Your task to perform on an android device: find which apps use the phone's location Image 0: 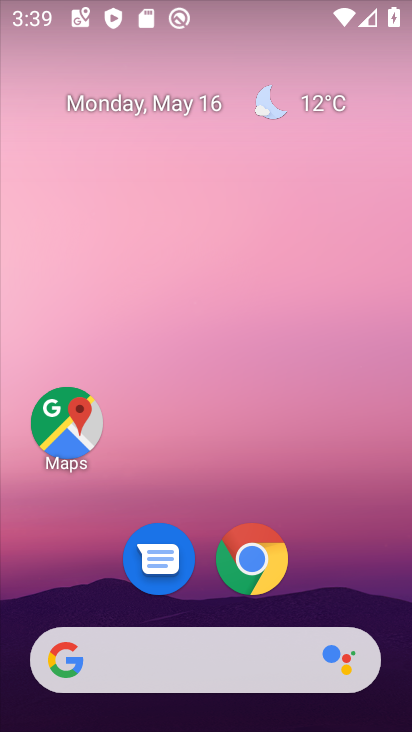
Step 0: drag from (314, 591) to (309, 253)
Your task to perform on an android device: find which apps use the phone's location Image 1: 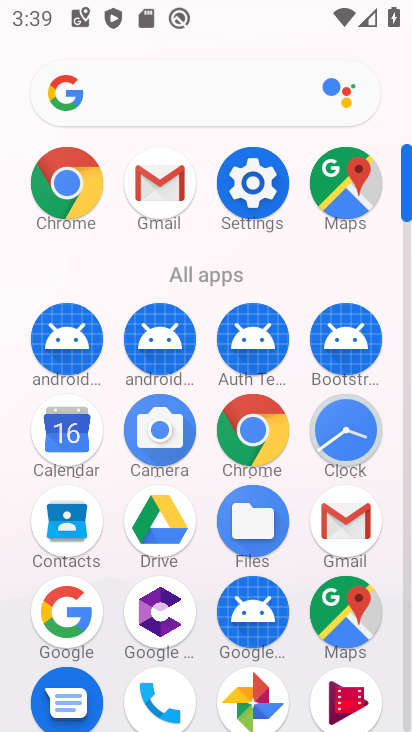
Step 1: click (264, 218)
Your task to perform on an android device: find which apps use the phone's location Image 2: 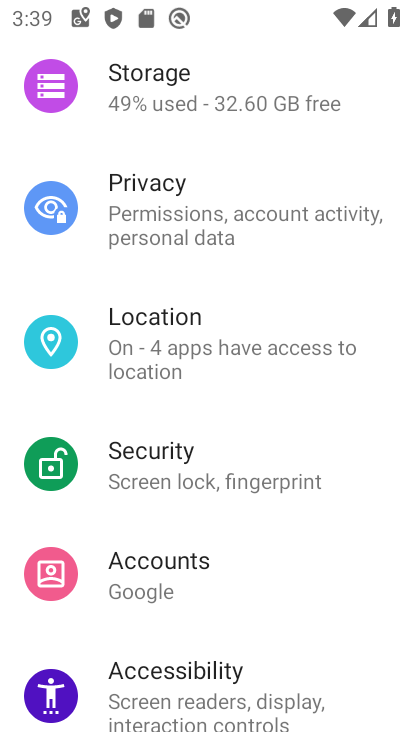
Step 2: drag from (272, 531) to (269, 286)
Your task to perform on an android device: find which apps use the phone's location Image 3: 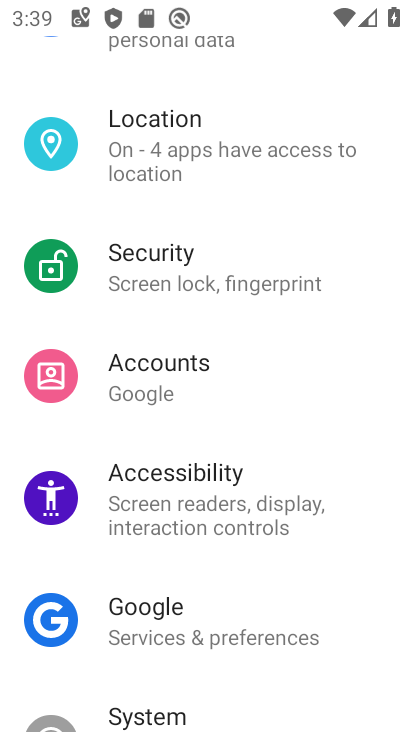
Step 3: click (225, 162)
Your task to perform on an android device: find which apps use the phone's location Image 4: 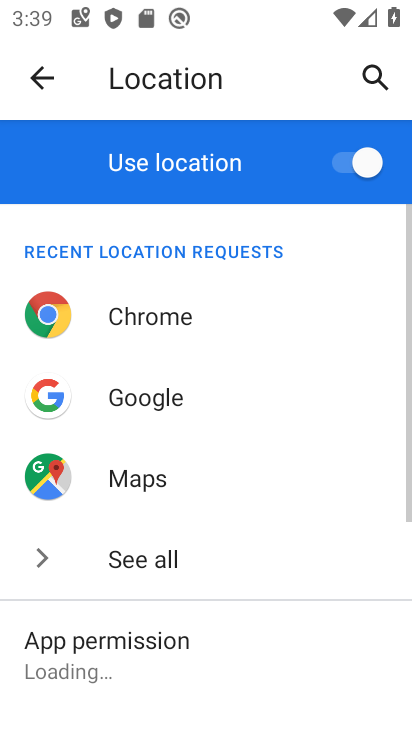
Step 4: click (86, 551)
Your task to perform on an android device: find which apps use the phone's location Image 5: 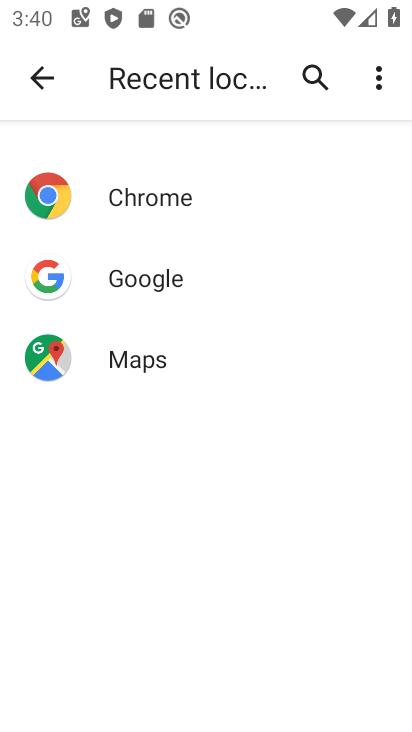
Step 5: task complete